Your task to perform on an android device: open app "Gmail" Image 0: 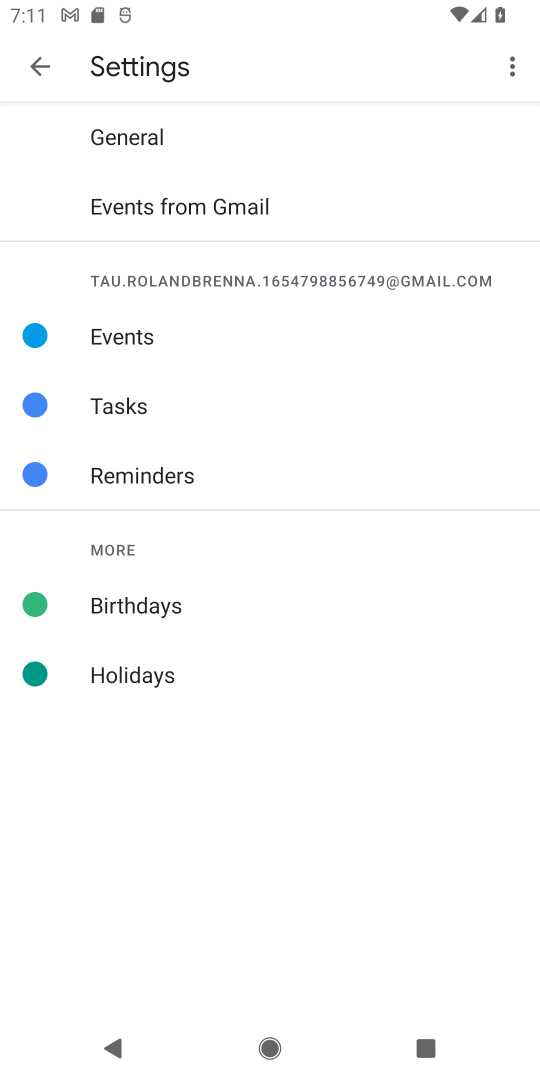
Step 0: press home button
Your task to perform on an android device: open app "Gmail" Image 1: 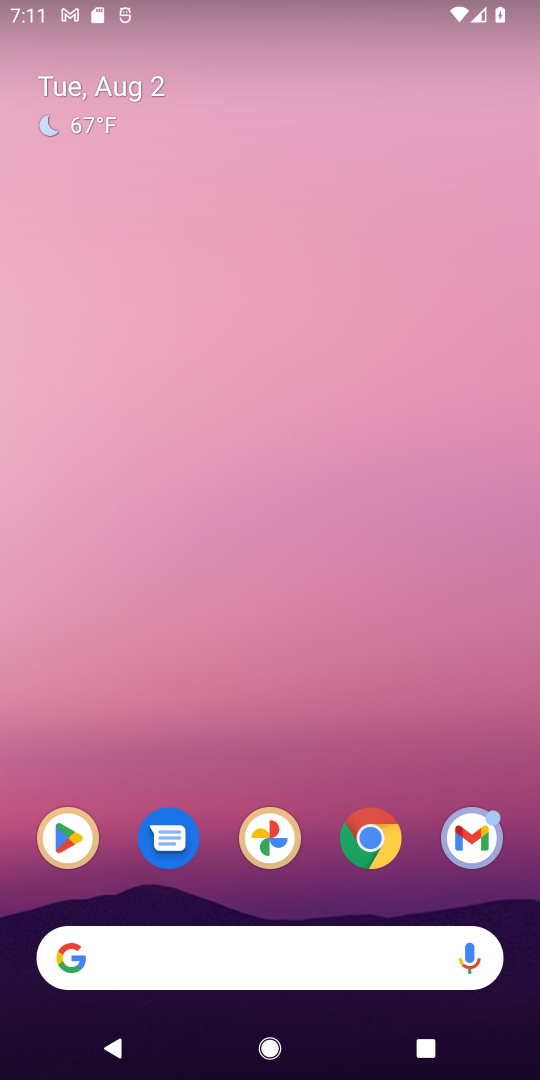
Step 1: click (77, 839)
Your task to perform on an android device: open app "Gmail" Image 2: 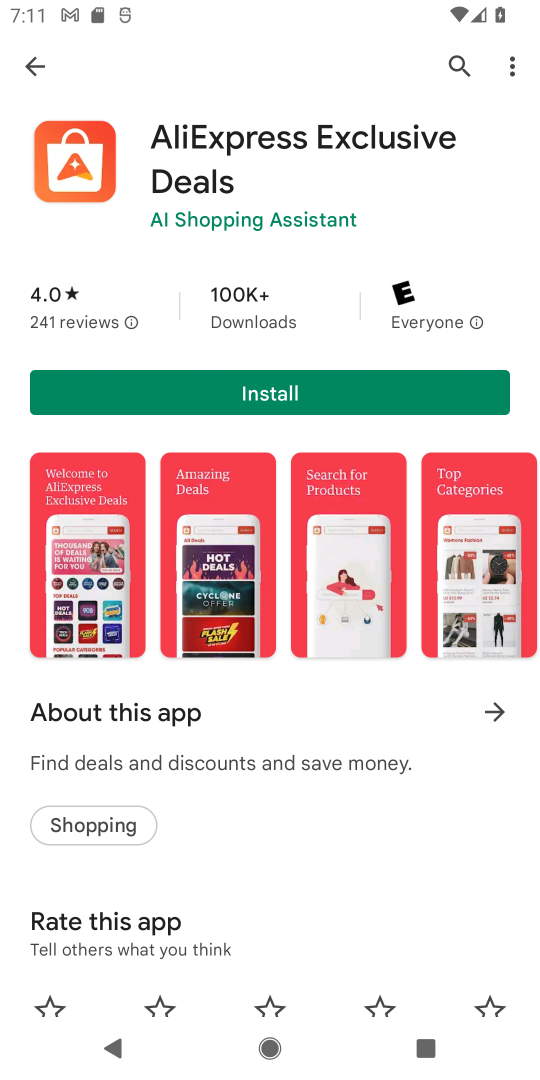
Step 2: click (459, 54)
Your task to perform on an android device: open app "Gmail" Image 3: 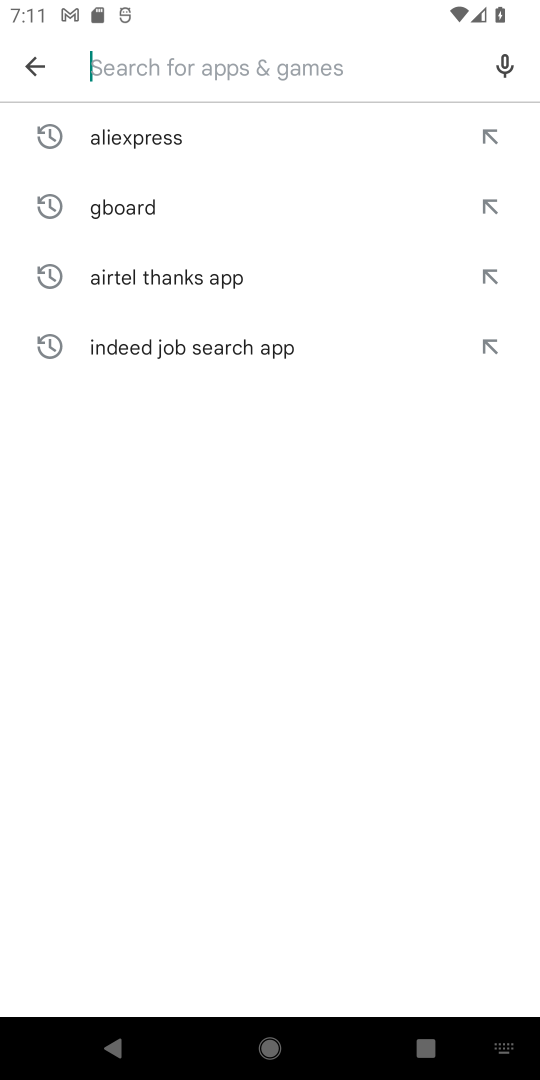
Step 3: type "gmail"
Your task to perform on an android device: open app "Gmail" Image 4: 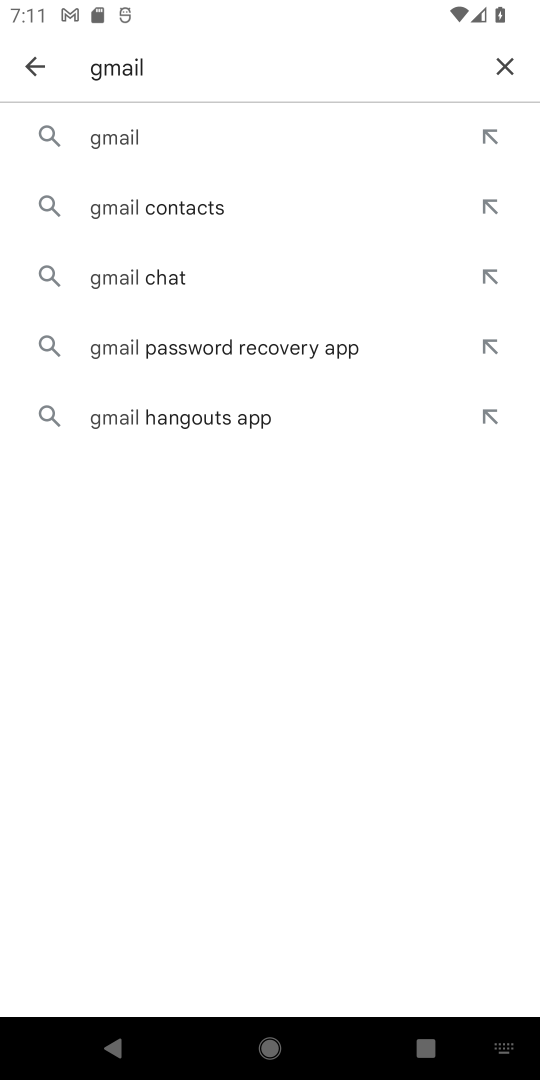
Step 4: click (263, 130)
Your task to perform on an android device: open app "Gmail" Image 5: 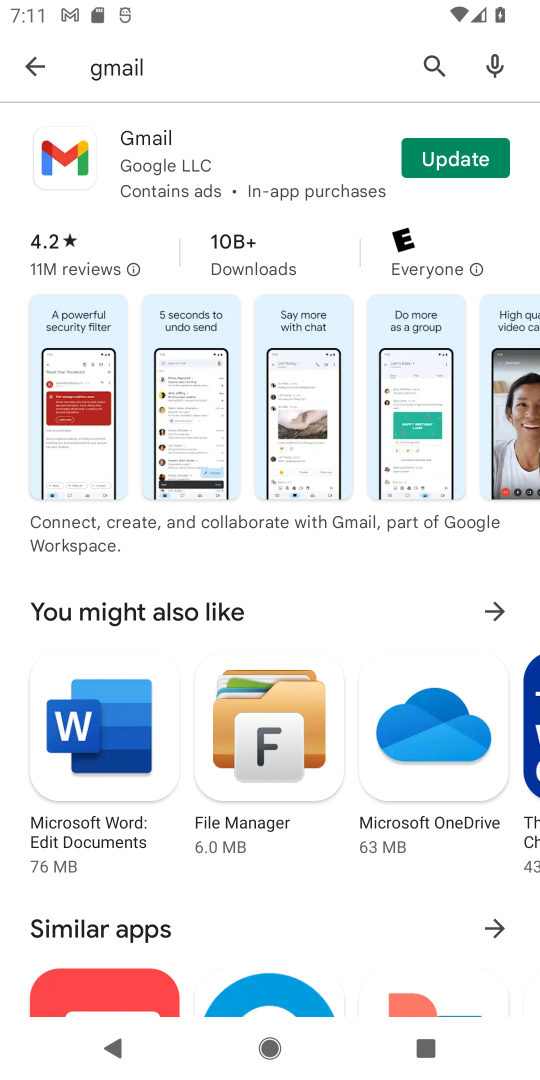
Step 5: click (231, 166)
Your task to perform on an android device: open app "Gmail" Image 6: 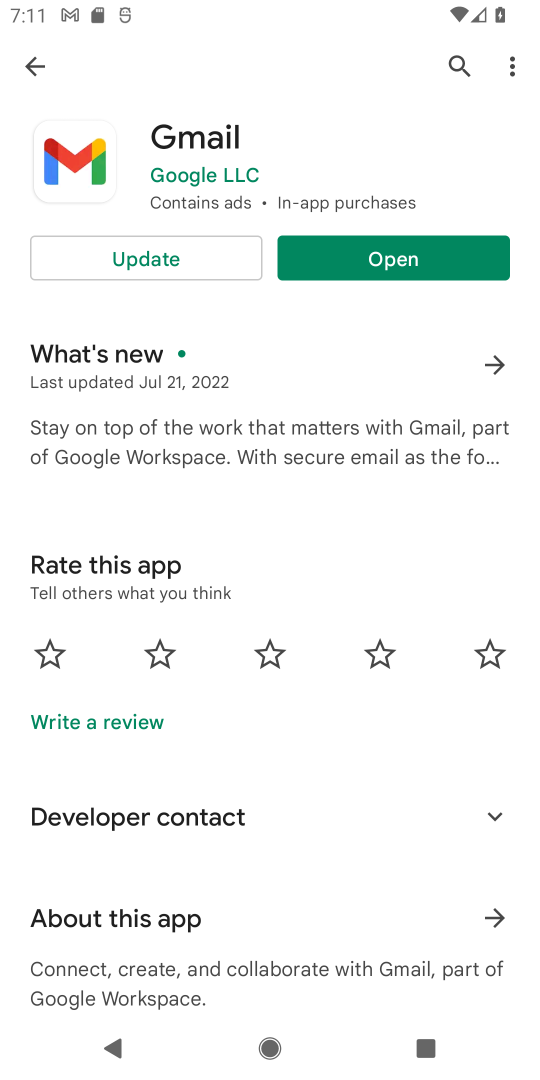
Step 6: click (322, 244)
Your task to perform on an android device: open app "Gmail" Image 7: 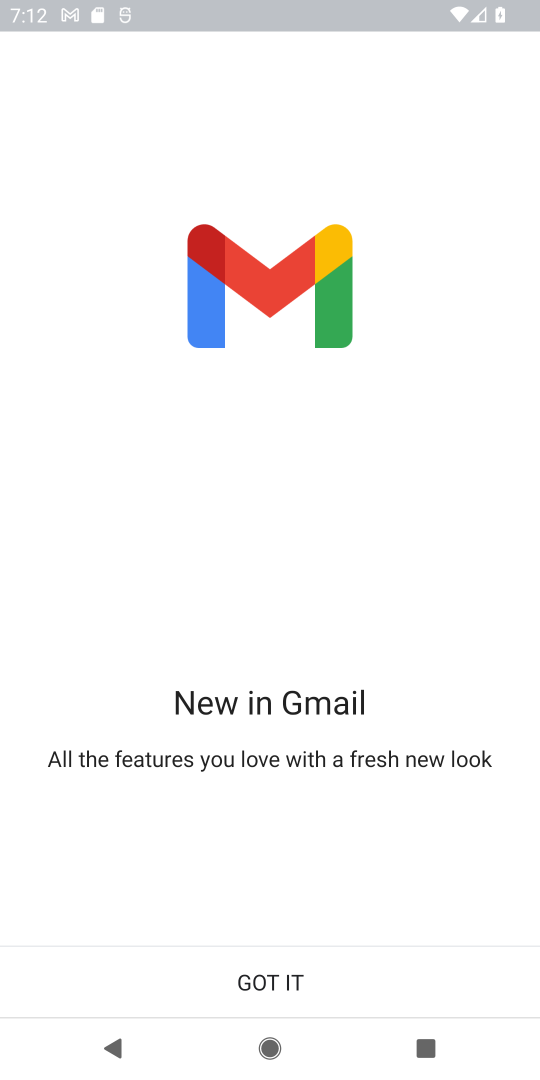
Step 7: task complete